Your task to perform on an android device: turn on data saver in the chrome app Image 0: 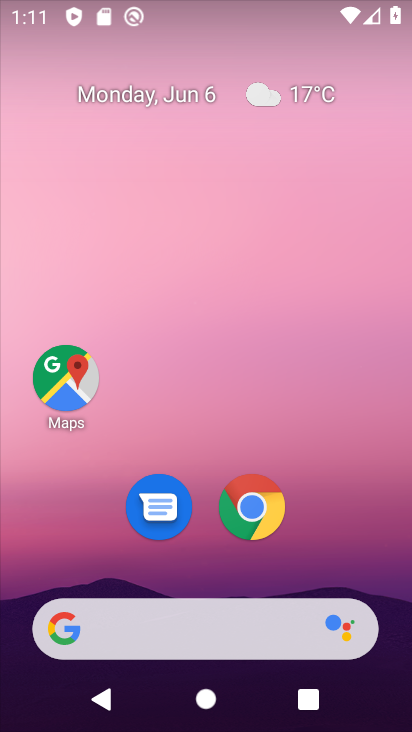
Step 0: click (252, 520)
Your task to perform on an android device: turn on data saver in the chrome app Image 1: 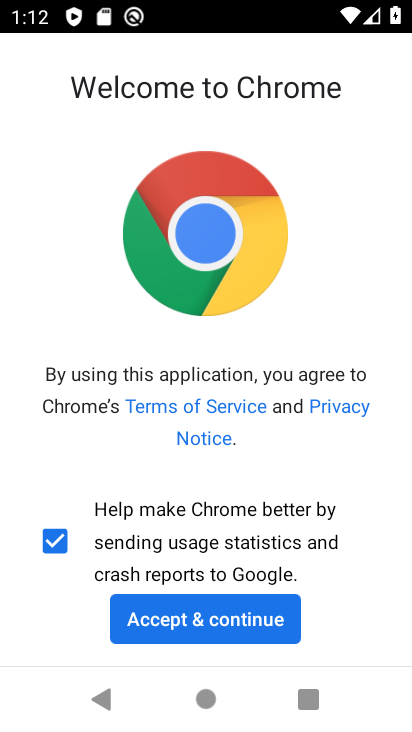
Step 1: click (252, 618)
Your task to perform on an android device: turn on data saver in the chrome app Image 2: 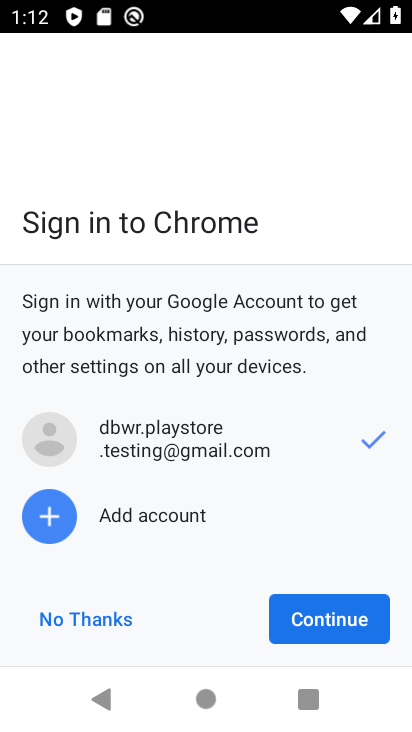
Step 2: click (310, 624)
Your task to perform on an android device: turn on data saver in the chrome app Image 3: 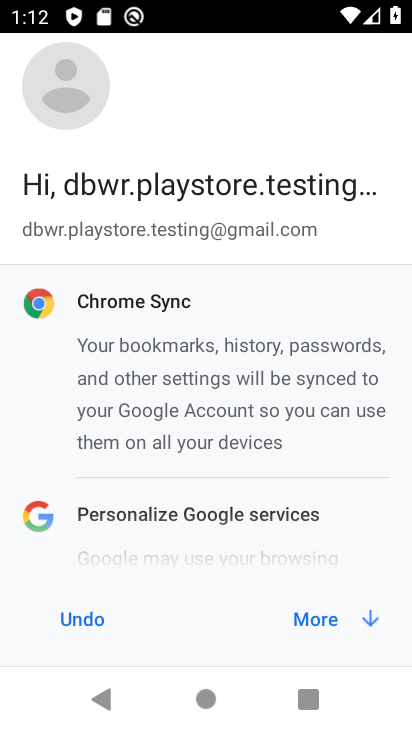
Step 3: click (310, 624)
Your task to perform on an android device: turn on data saver in the chrome app Image 4: 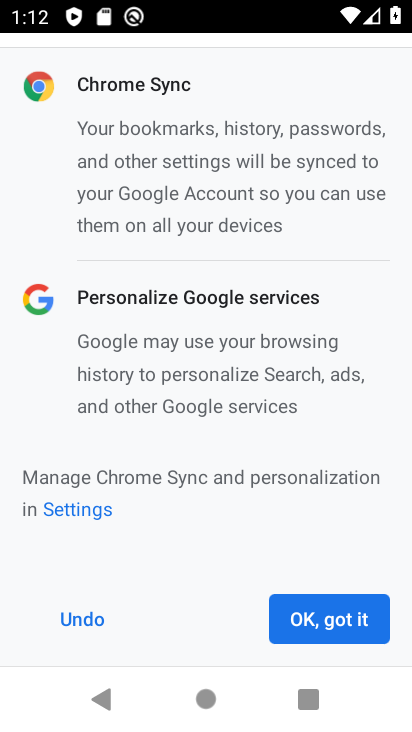
Step 4: click (310, 624)
Your task to perform on an android device: turn on data saver in the chrome app Image 5: 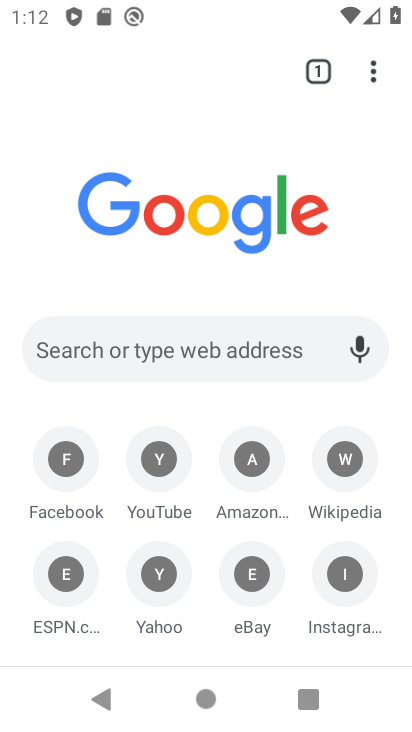
Step 5: click (374, 71)
Your task to perform on an android device: turn on data saver in the chrome app Image 6: 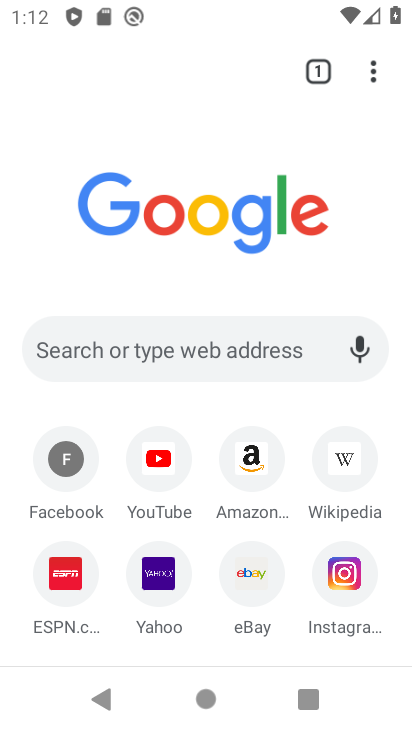
Step 6: click (368, 76)
Your task to perform on an android device: turn on data saver in the chrome app Image 7: 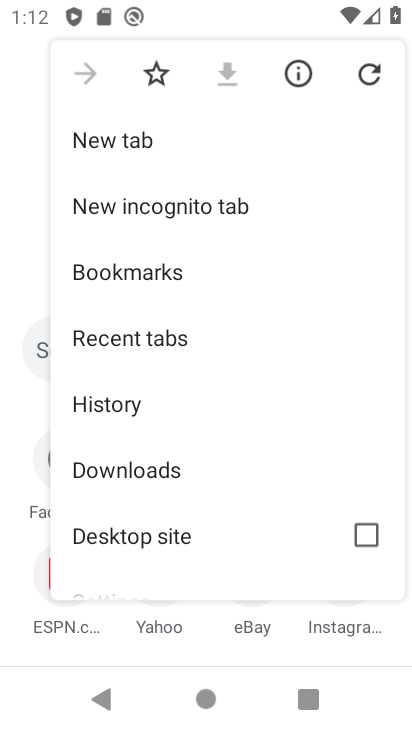
Step 7: drag from (204, 517) to (180, 160)
Your task to perform on an android device: turn on data saver in the chrome app Image 8: 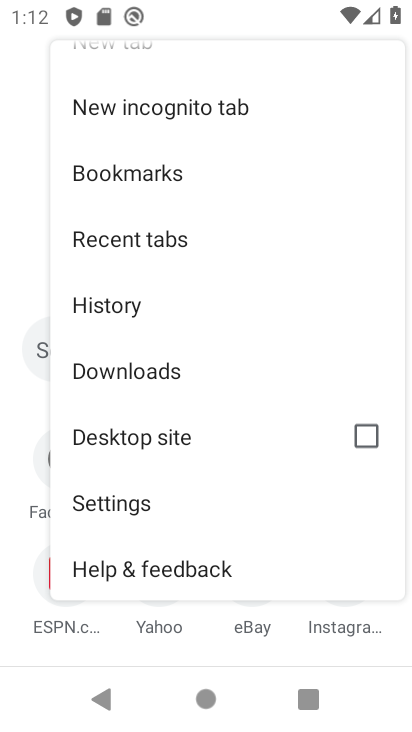
Step 8: click (125, 506)
Your task to perform on an android device: turn on data saver in the chrome app Image 9: 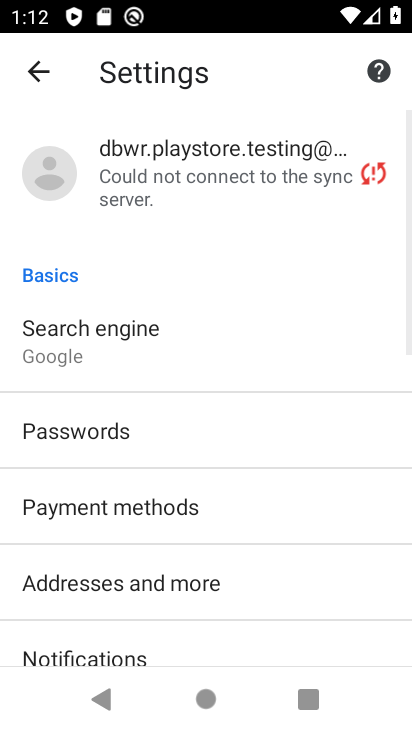
Step 9: drag from (161, 655) to (110, 216)
Your task to perform on an android device: turn on data saver in the chrome app Image 10: 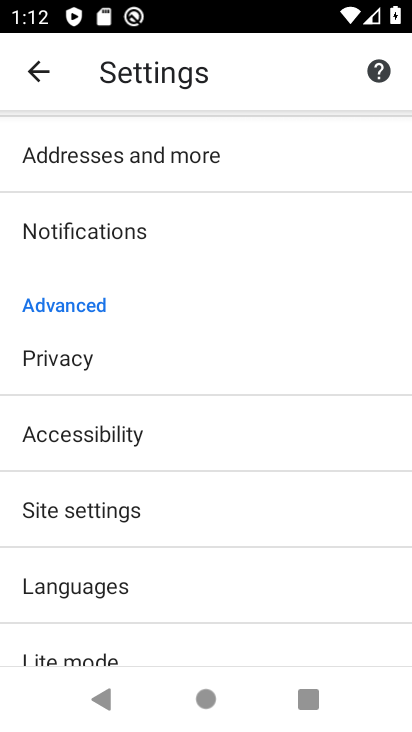
Step 10: drag from (97, 596) to (90, 220)
Your task to perform on an android device: turn on data saver in the chrome app Image 11: 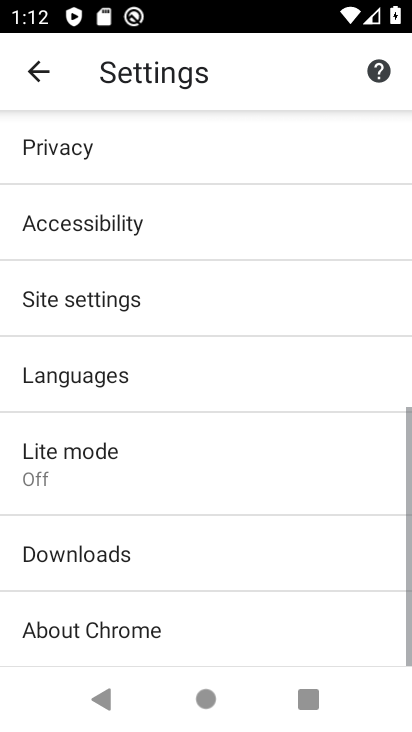
Step 11: click (107, 463)
Your task to perform on an android device: turn on data saver in the chrome app Image 12: 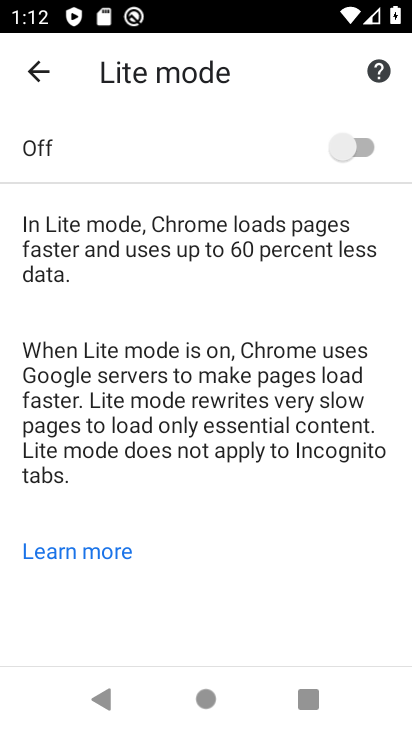
Step 12: click (360, 147)
Your task to perform on an android device: turn on data saver in the chrome app Image 13: 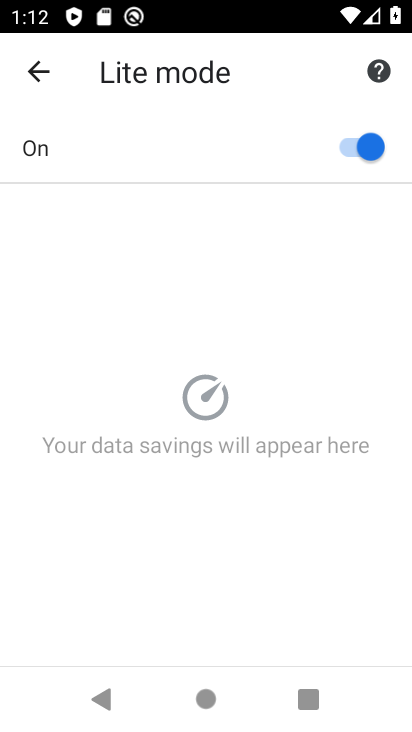
Step 13: task complete